Your task to perform on an android device: check google app version Image 0: 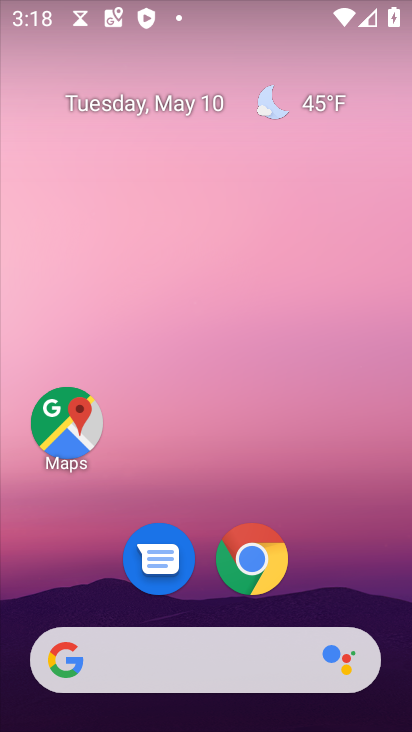
Step 0: drag from (340, 626) to (207, 29)
Your task to perform on an android device: check google app version Image 1: 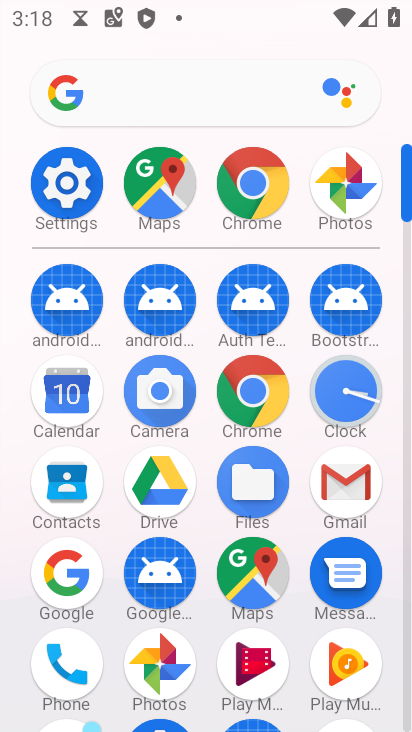
Step 1: click (85, 568)
Your task to perform on an android device: check google app version Image 2: 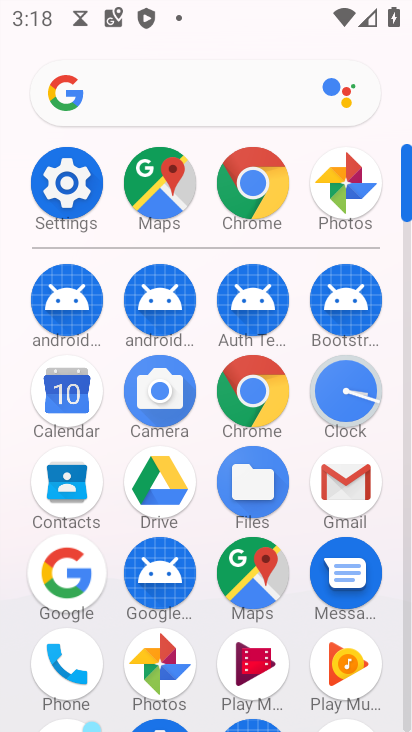
Step 2: click (83, 567)
Your task to perform on an android device: check google app version Image 3: 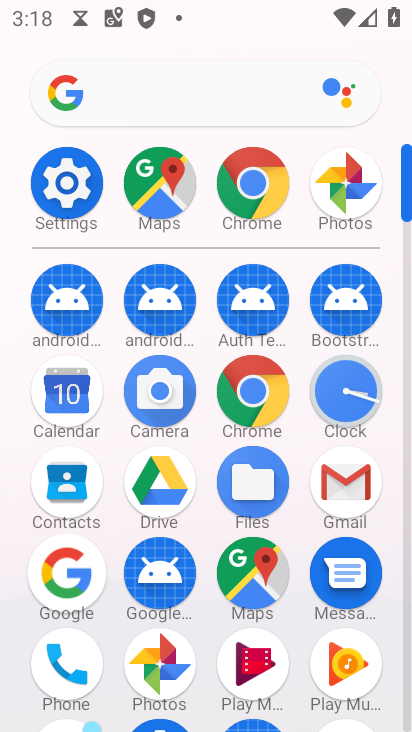
Step 3: click (83, 567)
Your task to perform on an android device: check google app version Image 4: 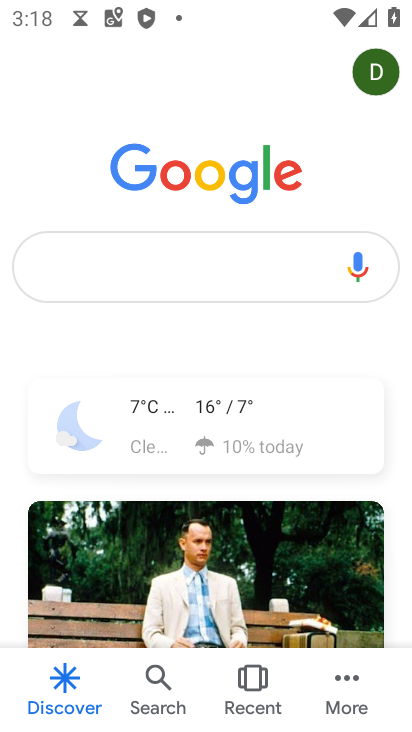
Step 4: click (340, 688)
Your task to perform on an android device: check google app version Image 5: 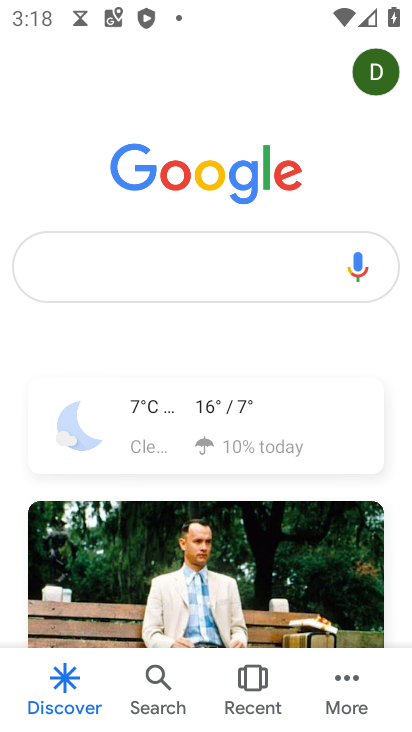
Step 5: click (344, 693)
Your task to perform on an android device: check google app version Image 6: 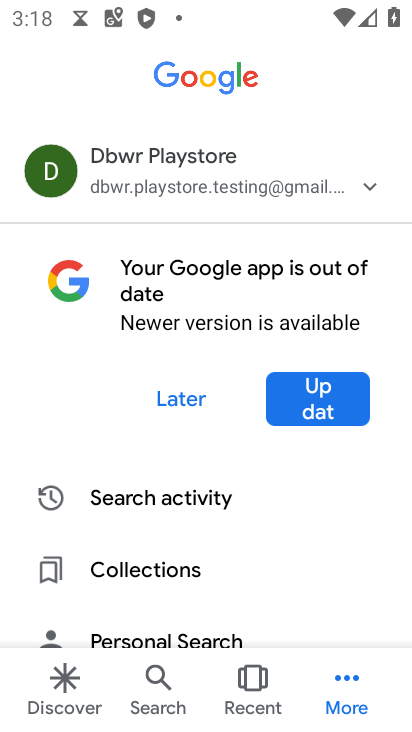
Step 6: click (347, 705)
Your task to perform on an android device: check google app version Image 7: 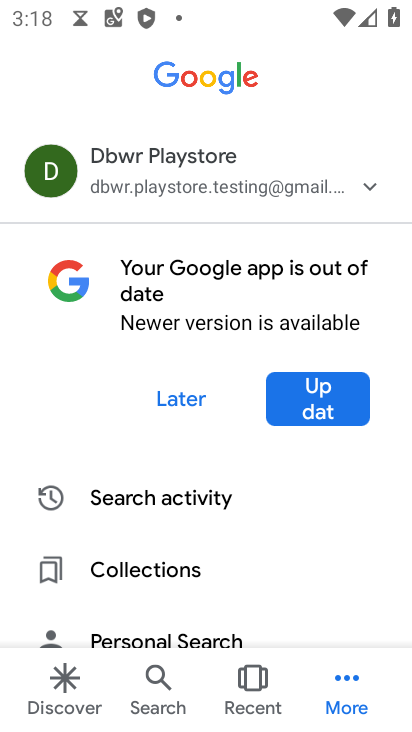
Step 7: click (347, 705)
Your task to perform on an android device: check google app version Image 8: 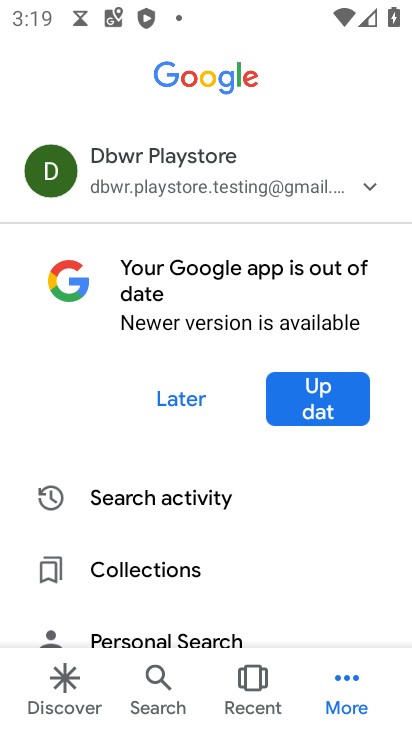
Step 8: click (348, 686)
Your task to perform on an android device: check google app version Image 9: 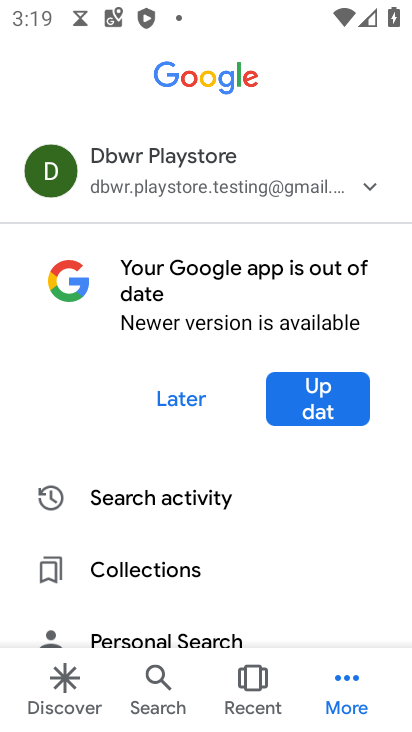
Step 9: click (348, 686)
Your task to perform on an android device: check google app version Image 10: 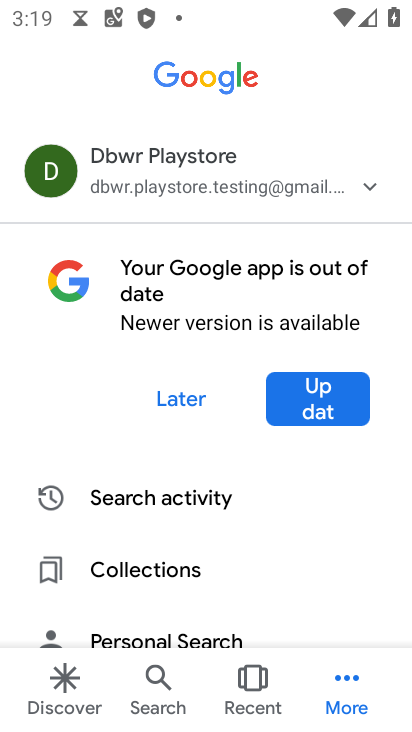
Step 10: click (356, 682)
Your task to perform on an android device: check google app version Image 11: 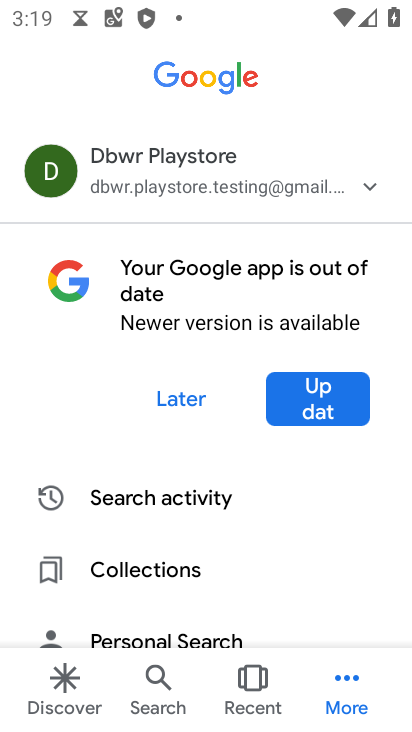
Step 11: click (328, 671)
Your task to perform on an android device: check google app version Image 12: 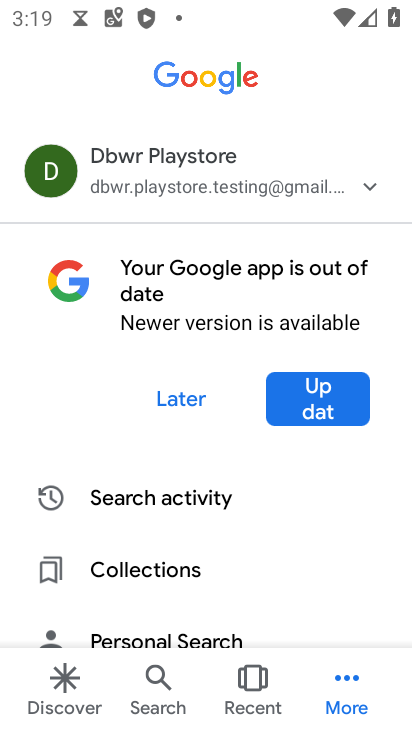
Step 12: click (339, 674)
Your task to perform on an android device: check google app version Image 13: 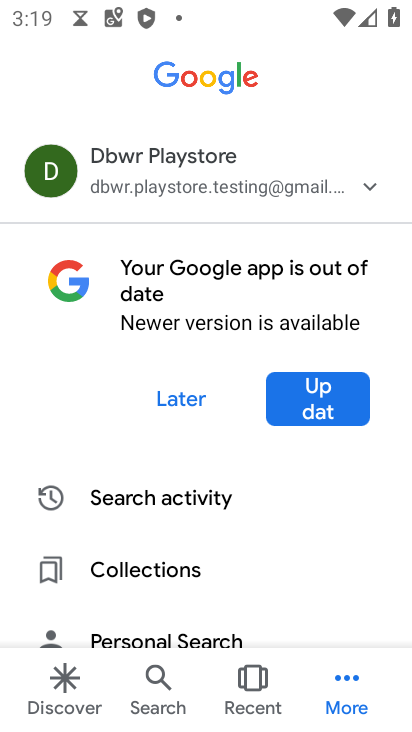
Step 13: click (341, 671)
Your task to perform on an android device: check google app version Image 14: 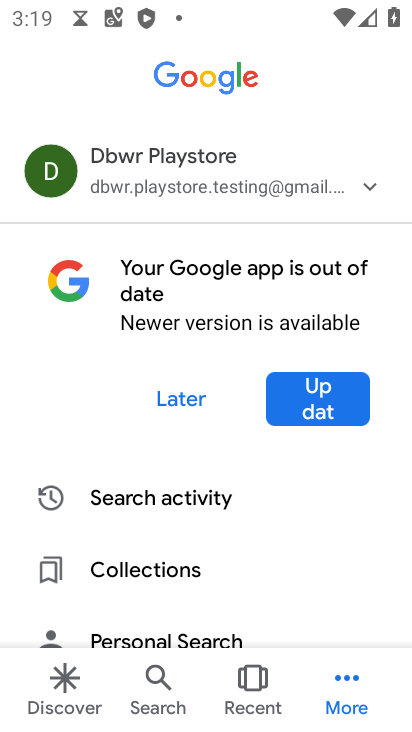
Step 14: click (347, 670)
Your task to perform on an android device: check google app version Image 15: 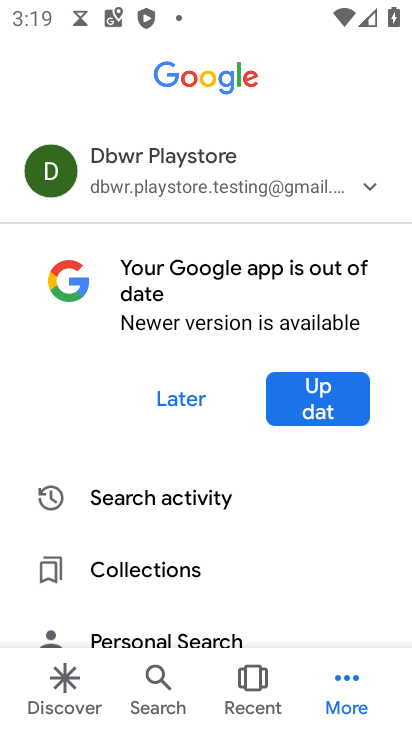
Step 15: drag from (187, 530) to (103, 135)
Your task to perform on an android device: check google app version Image 16: 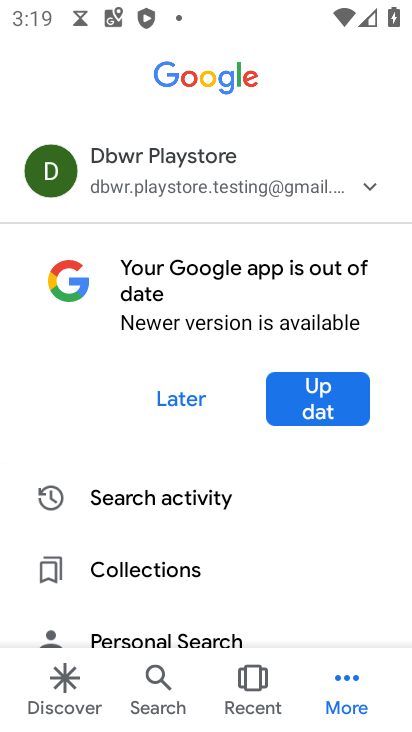
Step 16: drag from (225, 561) to (126, 212)
Your task to perform on an android device: check google app version Image 17: 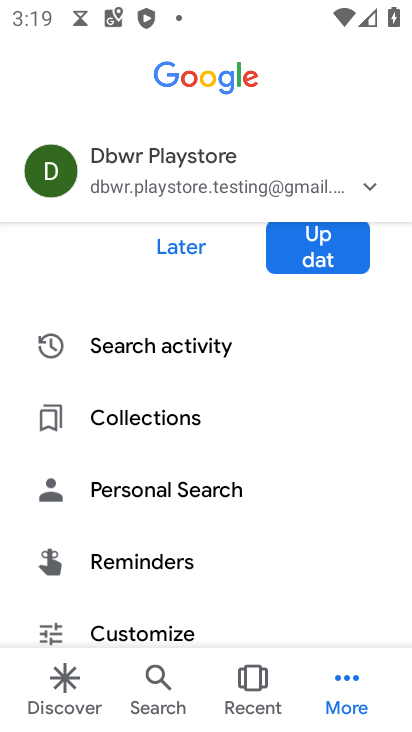
Step 17: drag from (283, 386) to (205, 95)
Your task to perform on an android device: check google app version Image 18: 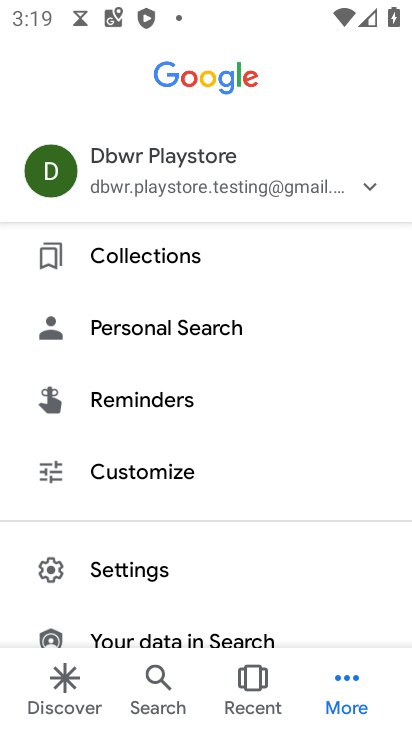
Step 18: drag from (199, 533) to (149, 35)
Your task to perform on an android device: check google app version Image 19: 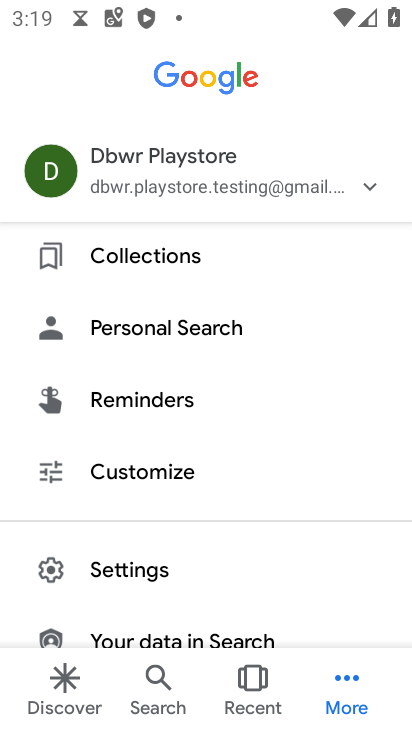
Step 19: drag from (172, 446) to (129, 105)
Your task to perform on an android device: check google app version Image 20: 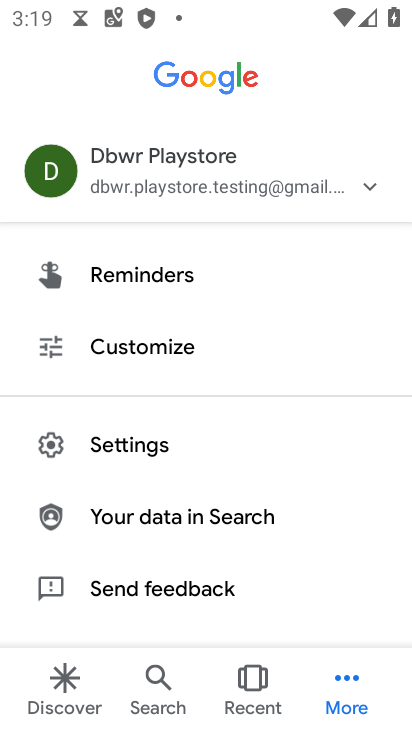
Step 20: click (141, 559)
Your task to perform on an android device: check google app version Image 21: 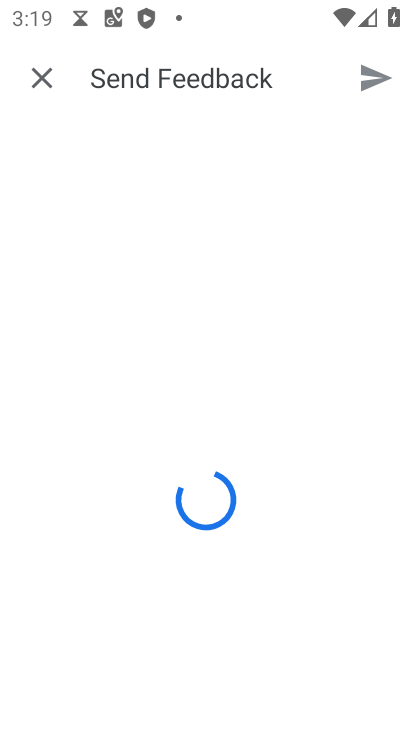
Step 21: click (32, 69)
Your task to perform on an android device: check google app version Image 22: 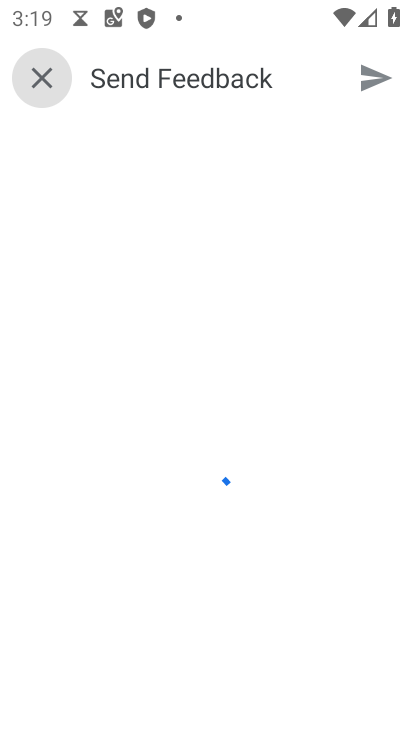
Step 22: click (30, 63)
Your task to perform on an android device: check google app version Image 23: 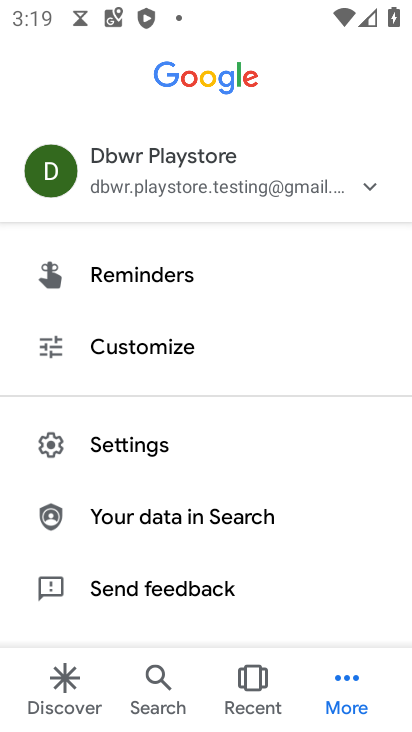
Step 23: click (146, 449)
Your task to perform on an android device: check google app version Image 24: 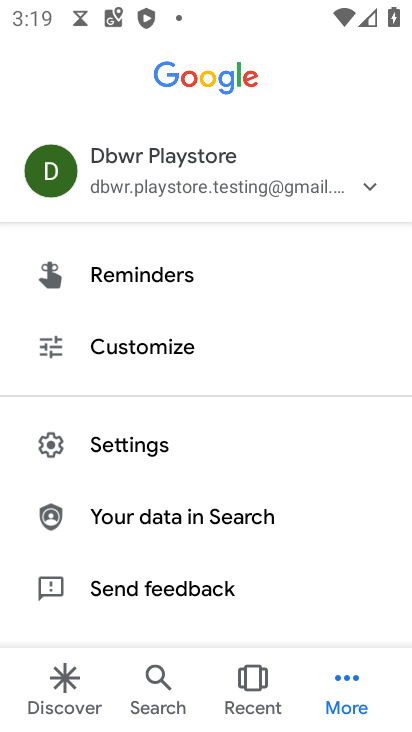
Step 24: click (146, 449)
Your task to perform on an android device: check google app version Image 25: 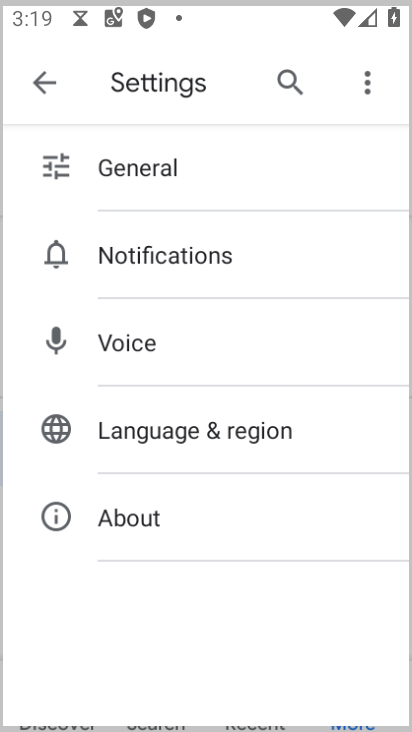
Step 25: click (132, 450)
Your task to perform on an android device: check google app version Image 26: 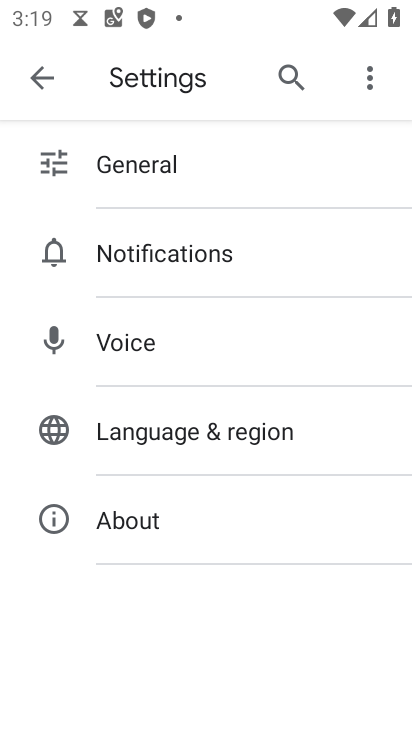
Step 26: click (123, 446)
Your task to perform on an android device: check google app version Image 27: 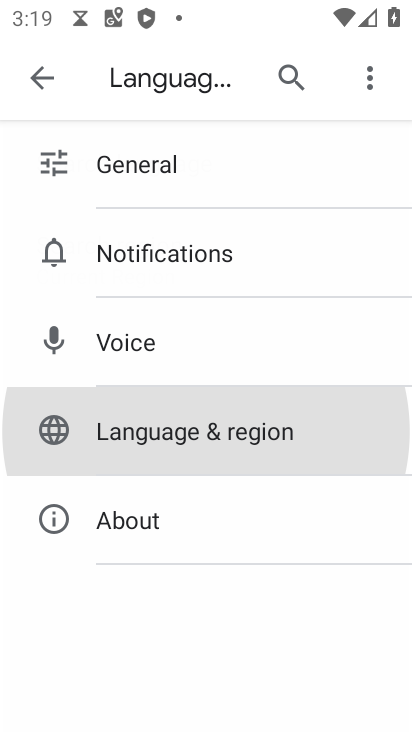
Step 27: click (124, 445)
Your task to perform on an android device: check google app version Image 28: 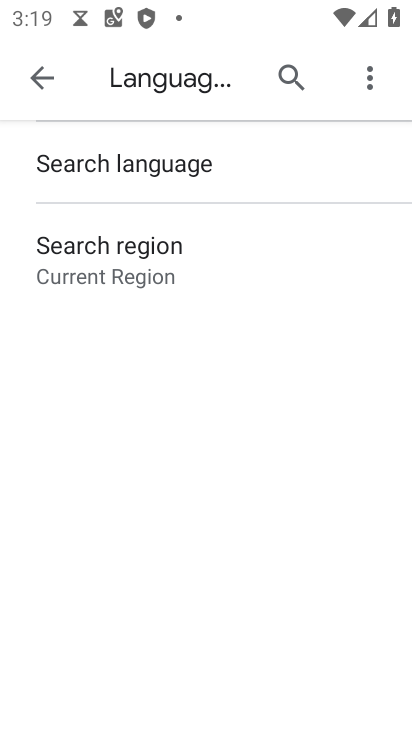
Step 28: click (38, 72)
Your task to perform on an android device: check google app version Image 29: 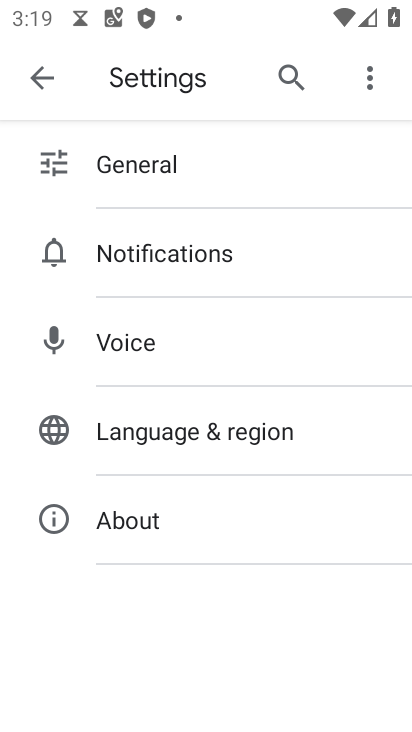
Step 29: click (123, 513)
Your task to perform on an android device: check google app version Image 30: 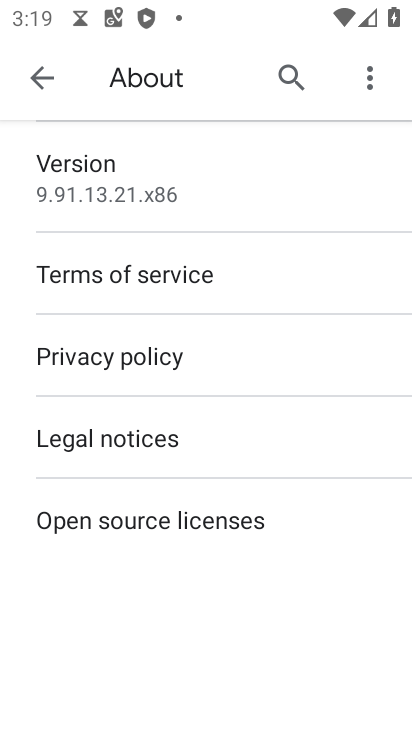
Step 30: task complete